Your task to perform on an android device: Go to Maps Image 0: 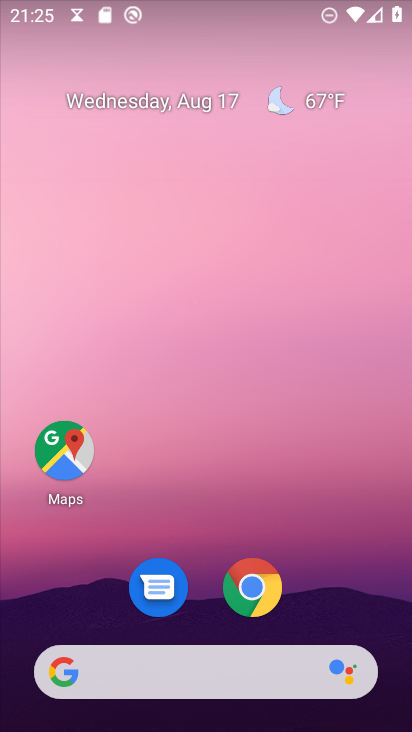
Step 0: click (81, 440)
Your task to perform on an android device: Go to Maps Image 1: 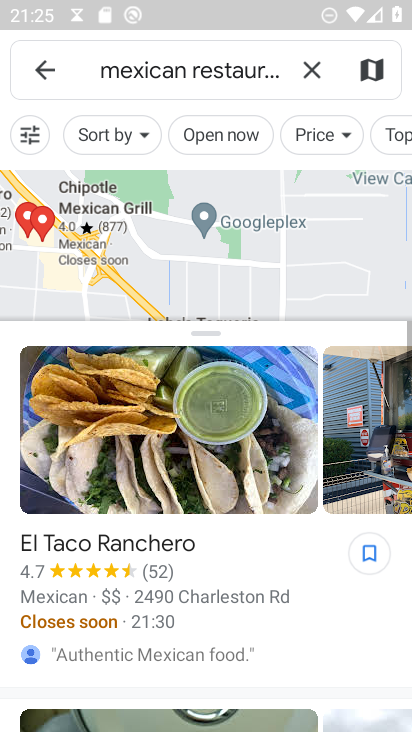
Step 1: task complete